Your task to perform on an android device: toggle sleep mode Image 0: 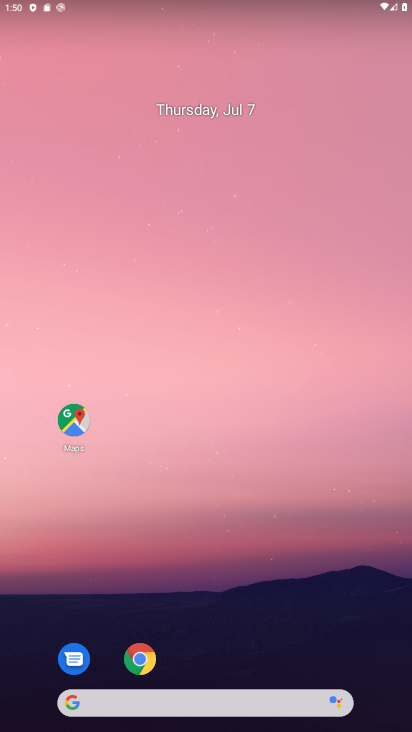
Step 0: drag from (310, 586) to (295, 51)
Your task to perform on an android device: toggle sleep mode Image 1: 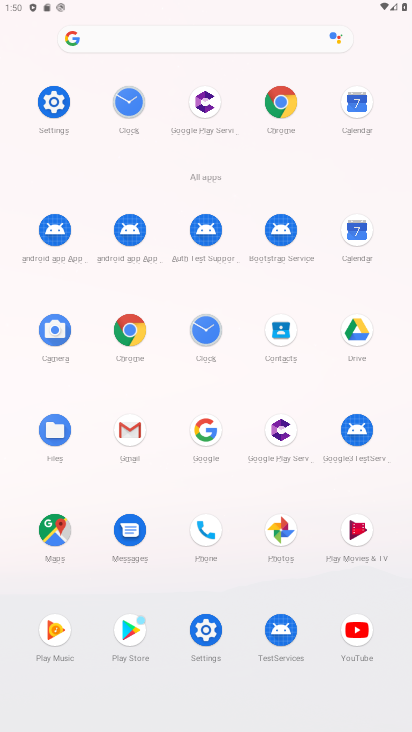
Step 1: click (44, 104)
Your task to perform on an android device: toggle sleep mode Image 2: 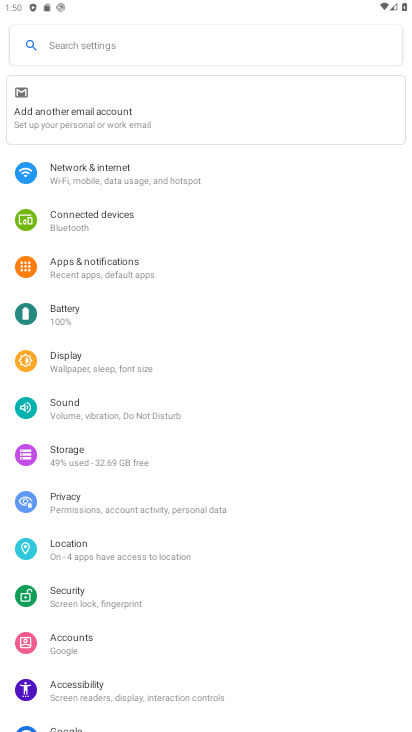
Step 2: task complete